Your task to perform on an android device: Open location settings Image 0: 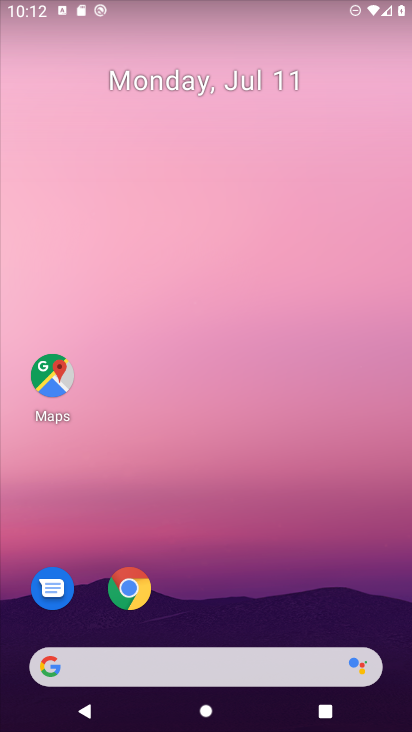
Step 0: drag from (406, 662) to (240, 21)
Your task to perform on an android device: Open location settings Image 1: 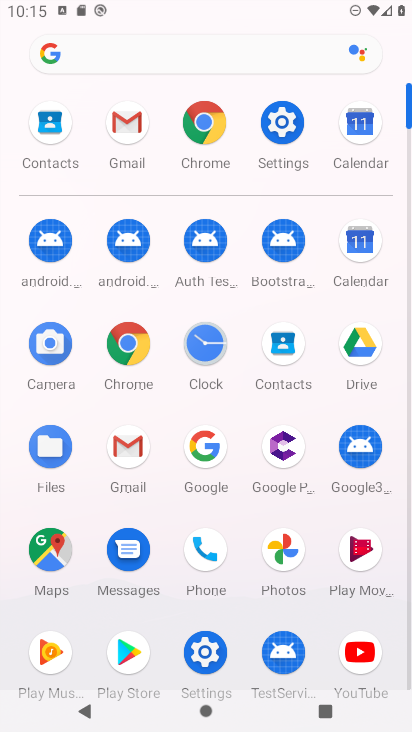
Step 1: click (209, 650)
Your task to perform on an android device: Open location settings Image 2: 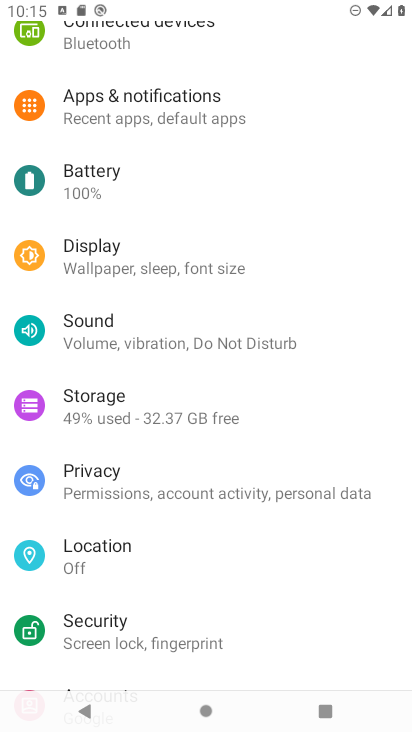
Step 2: click (95, 547)
Your task to perform on an android device: Open location settings Image 3: 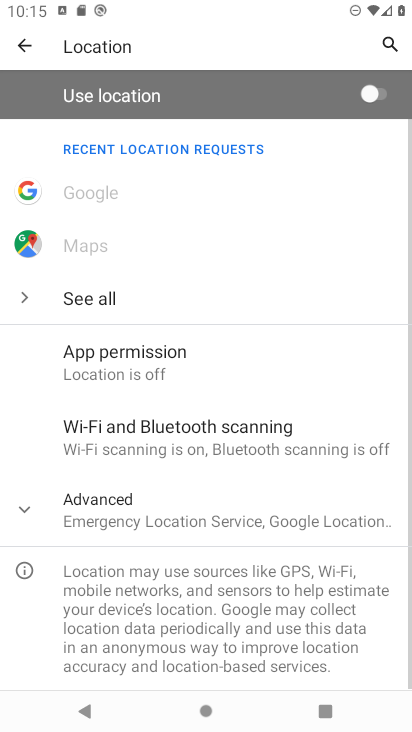
Step 3: task complete